Your task to perform on an android device: manage bookmarks in the chrome app Image 0: 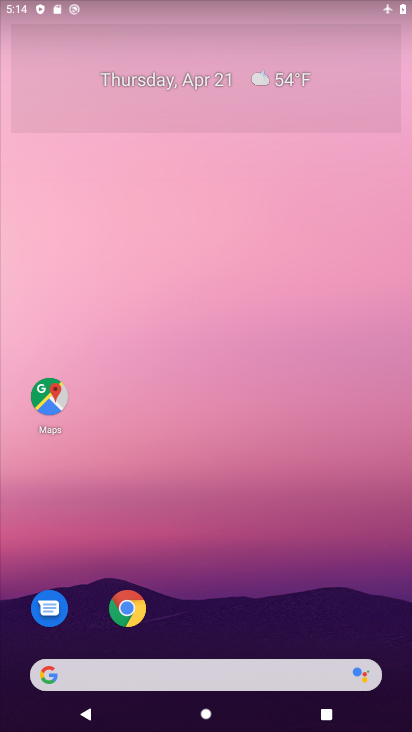
Step 0: click (132, 615)
Your task to perform on an android device: manage bookmarks in the chrome app Image 1: 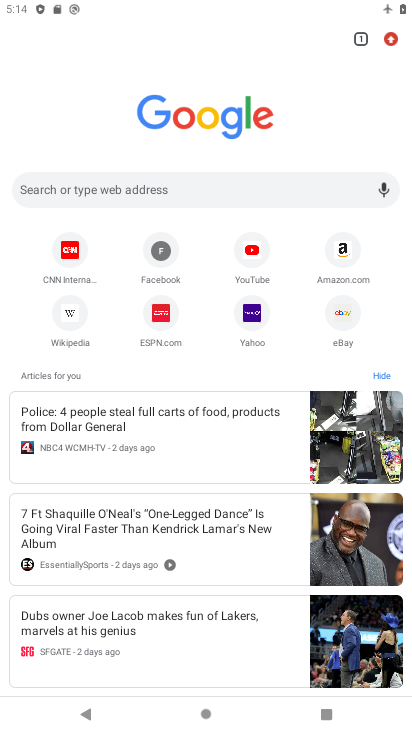
Step 1: click (195, 195)
Your task to perform on an android device: manage bookmarks in the chrome app Image 2: 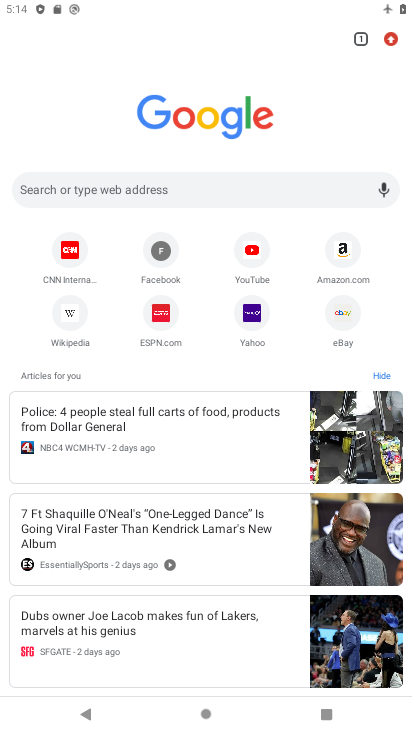
Step 2: click (195, 195)
Your task to perform on an android device: manage bookmarks in the chrome app Image 3: 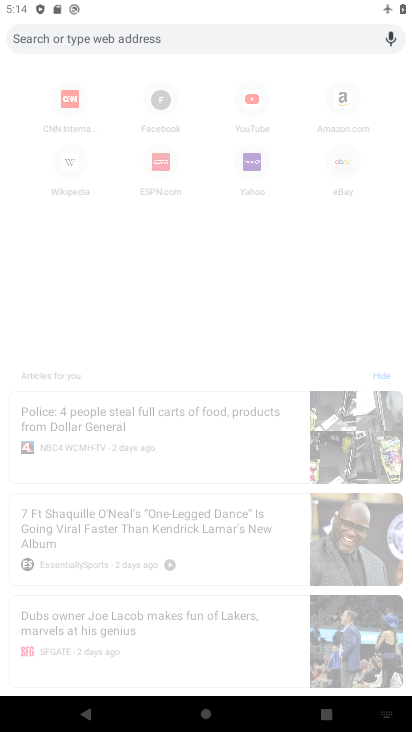
Step 3: click (85, 721)
Your task to perform on an android device: manage bookmarks in the chrome app Image 4: 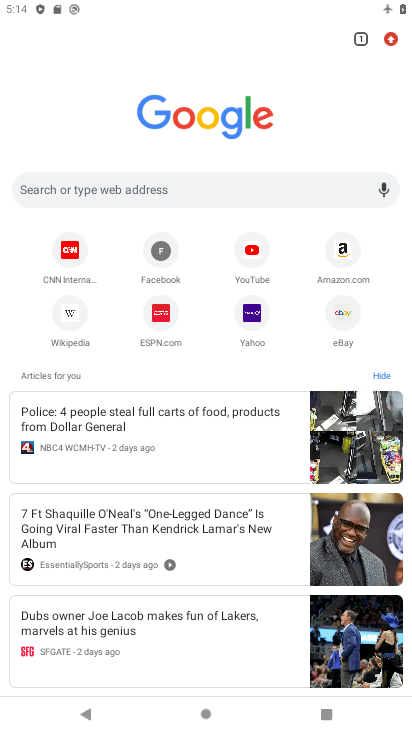
Step 4: click (391, 38)
Your task to perform on an android device: manage bookmarks in the chrome app Image 5: 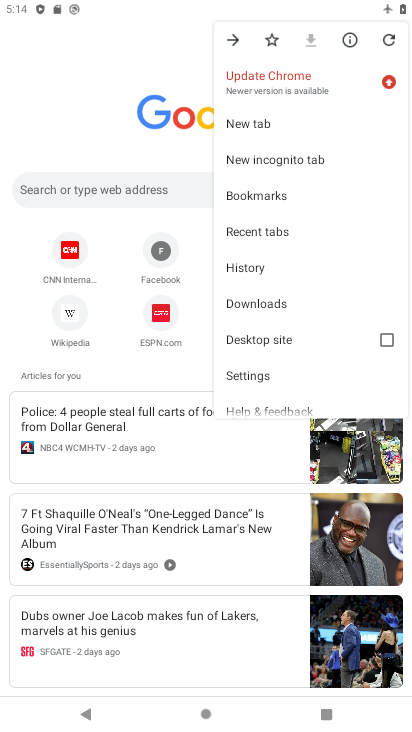
Step 5: click (280, 192)
Your task to perform on an android device: manage bookmarks in the chrome app Image 6: 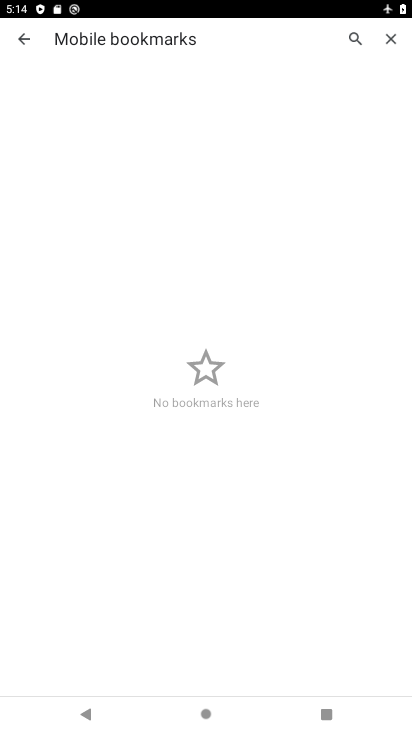
Step 6: task complete